Your task to perform on an android device: Search for sushi restaurants on Maps Image 0: 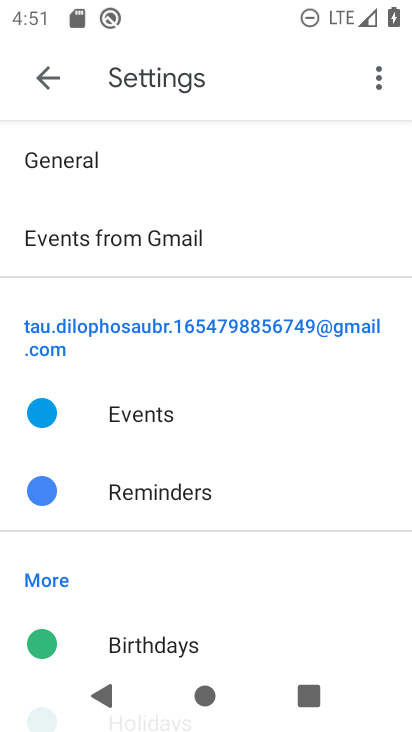
Step 0: press back button
Your task to perform on an android device: Search for sushi restaurants on Maps Image 1: 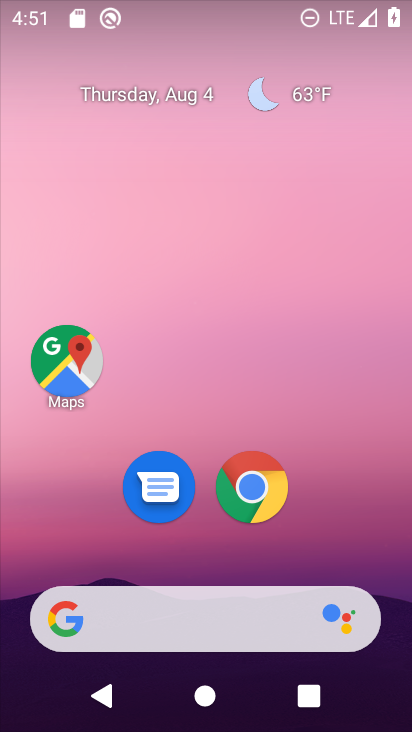
Step 1: click (66, 358)
Your task to perform on an android device: Search for sushi restaurants on Maps Image 2: 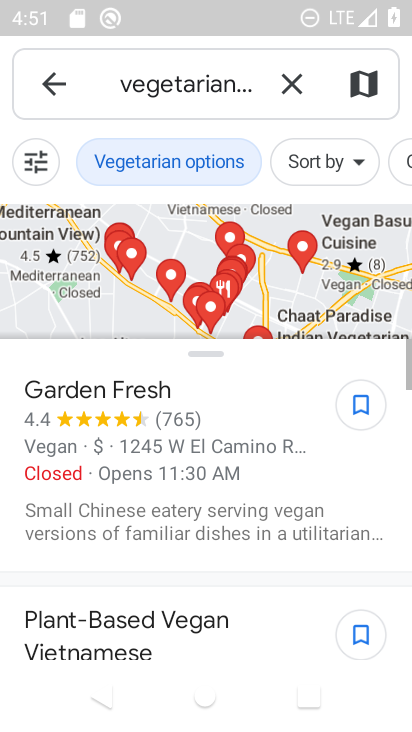
Step 2: click (293, 84)
Your task to perform on an android device: Search for sushi restaurants on Maps Image 3: 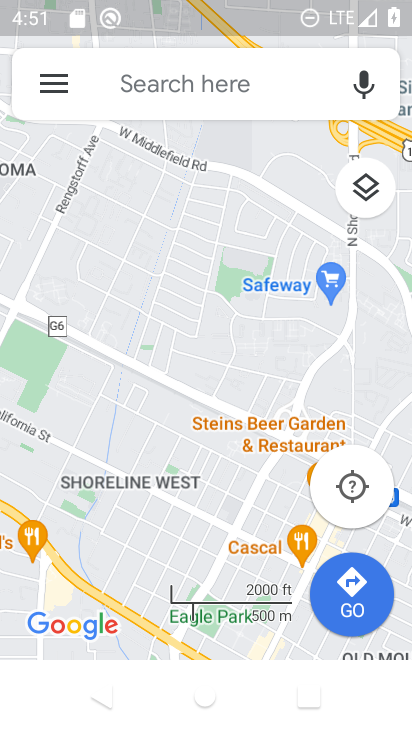
Step 3: click (196, 84)
Your task to perform on an android device: Search for sushi restaurants on Maps Image 4: 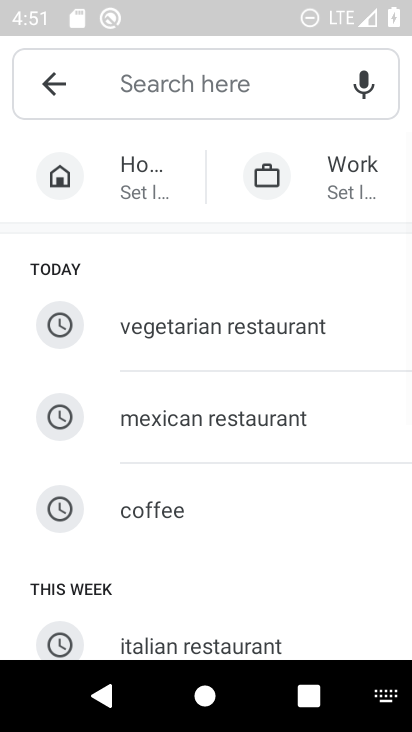
Step 4: drag from (193, 624) to (299, 22)
Your task to perform on an android device: Search for sushi restaurants on Maps Image 5: 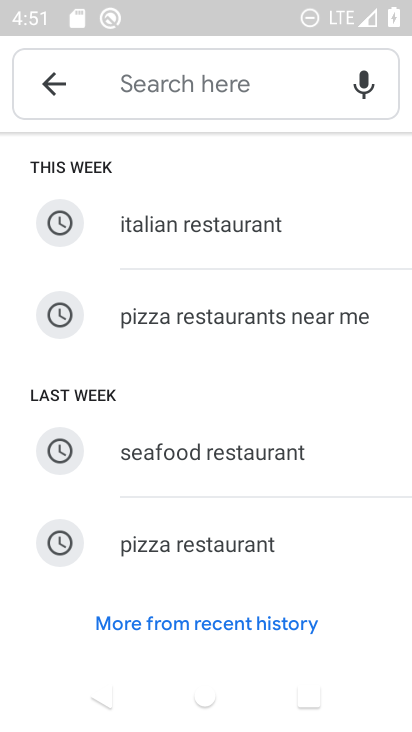
Step 5: click (189, 74)
Your task to perform on an android device: Search for sushi restaurants on Maps Image 6: 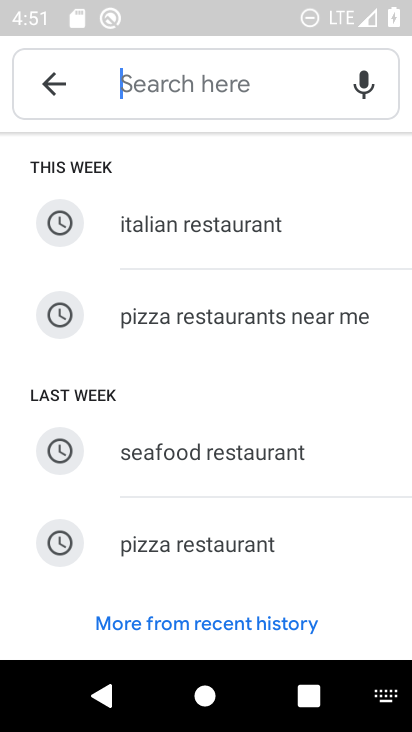
Step 6: type "sushi restaurants"
Your task to perform on an android device: Search for sushi restaurants on Maps Image 7: 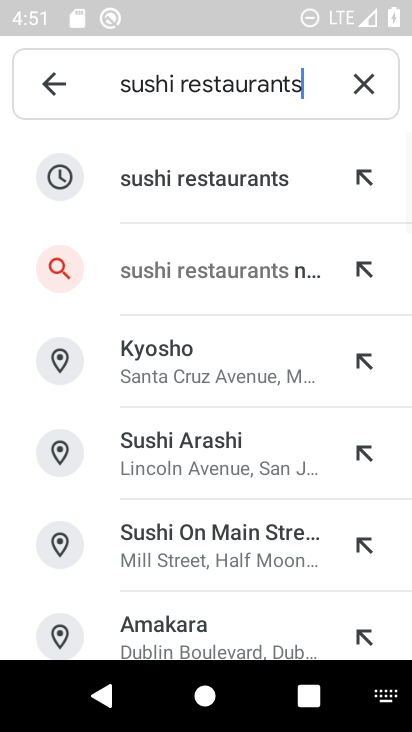
Step 7: click (177, 181)
Your task to perform on an android device: Search for sushi restaurants on Maps Image 8: 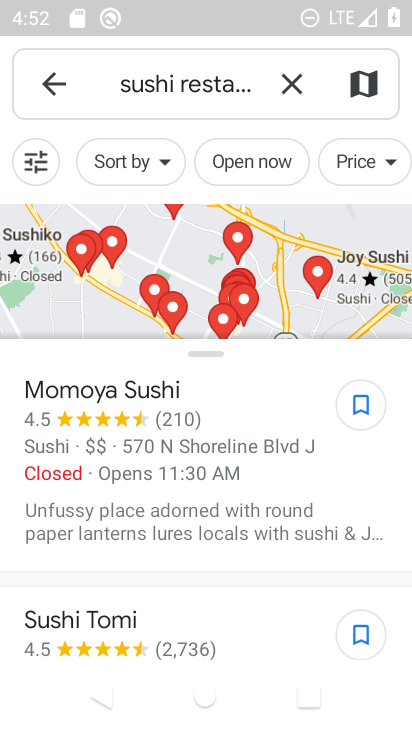
Step 8: task complete